Your task to perform on an android device: change the clock display to analog Image 0: 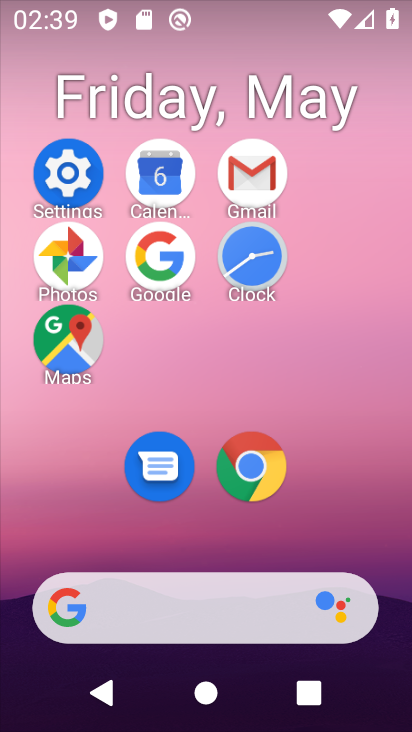
Step 0: click (290, 256)
Your task to perform on an android device: change the clock display to analog Image 1: 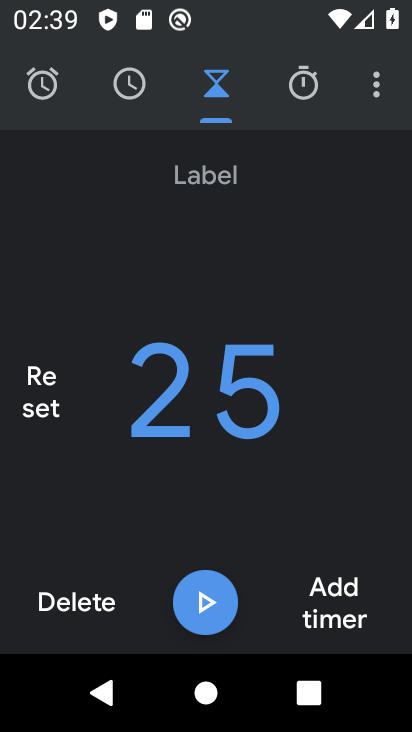
Step 1: click (368, 89)
Your task to perform on an android device: change the clock display to analog Image 2: 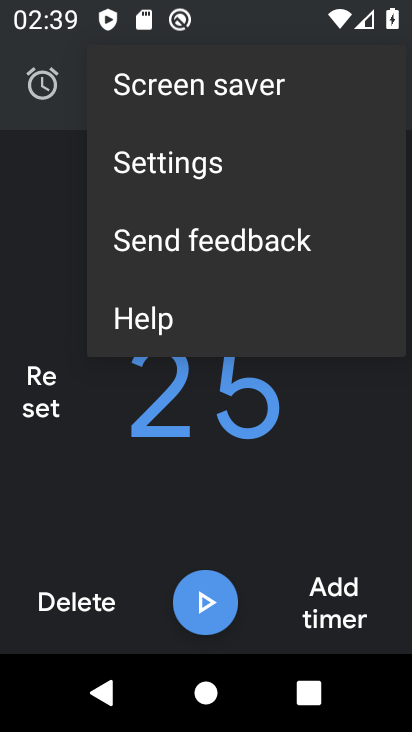
Step 2: click (245, 175)
Your task to perform on an android device: change the clock display to analog Image 3: 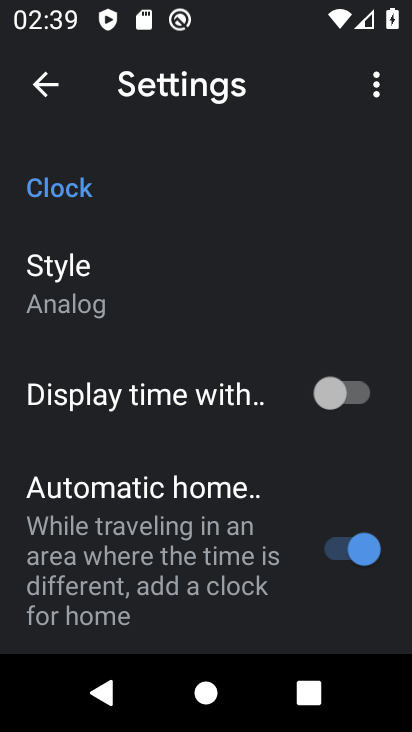
Step 3: task complete